Your task to perform on an android device: When is my next meeting? Image 0: 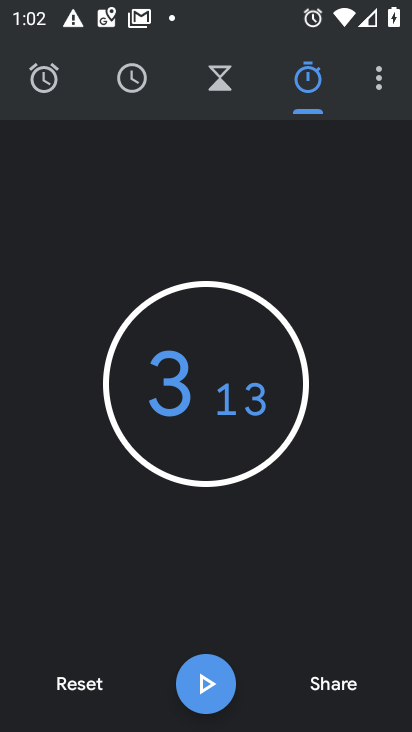
Step 0: press home button
Your task to perform on an android device: When is my next meeting? Image 1: 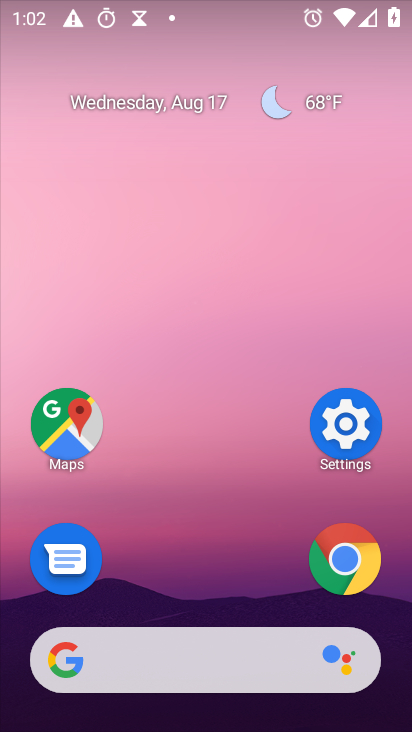
Step 1: drag from (165, 622) to (303, 127)
Your task to perform on an android device: When is my next meeting? Image 2: 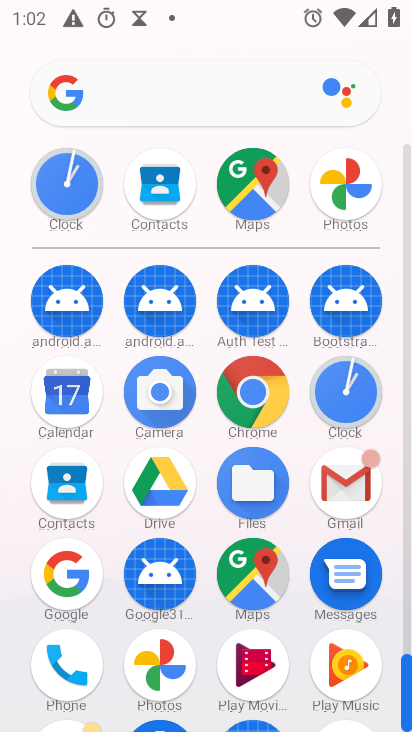
Step 2: click (68, 384)
Your task to perform on an android device: When is my next meeting? Image 3: 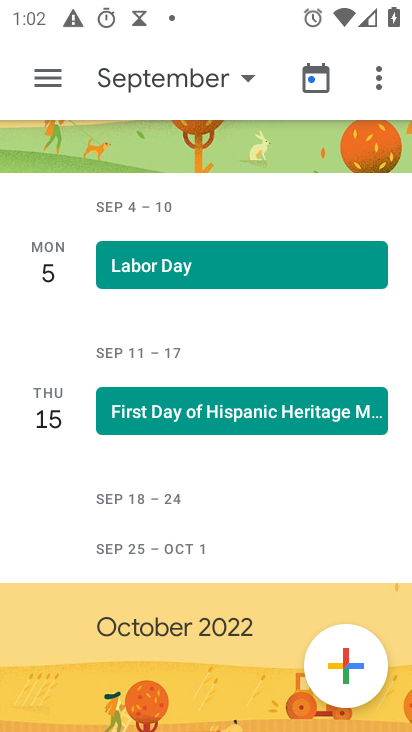
Step 3: task complete